Your task to perform on an android device: Search for Italian restaurants on Maps Image 0: 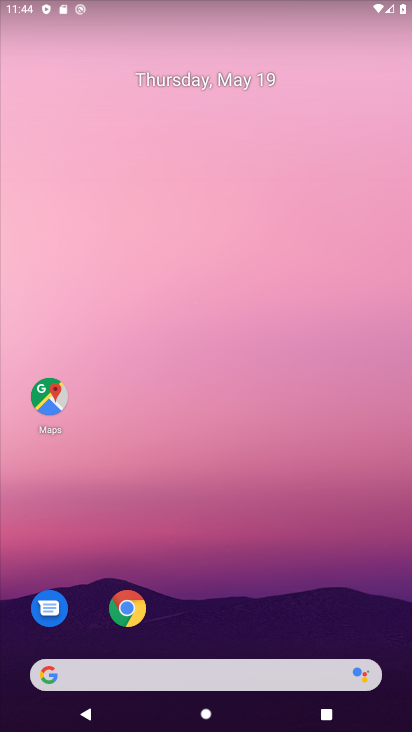
Step 0: drag from (367, 640) to (380, 103)
Your task to perform on an android device: Search for Italian restaurants on Maps Image 1: 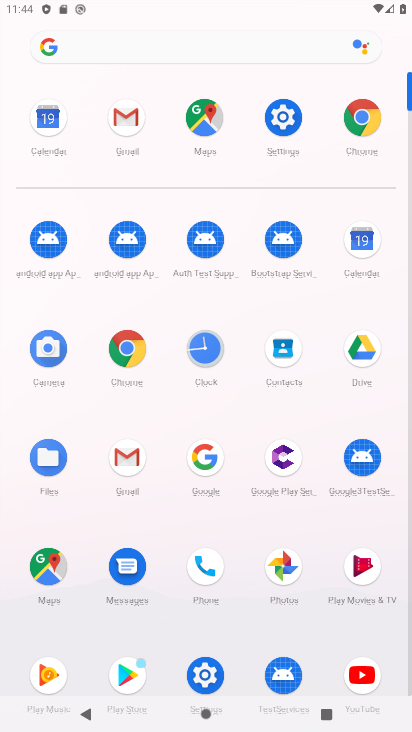
Step 1: click (53, 574)
Your task to perform on an android device: Search for Italian restaurants on Maps Image 2: 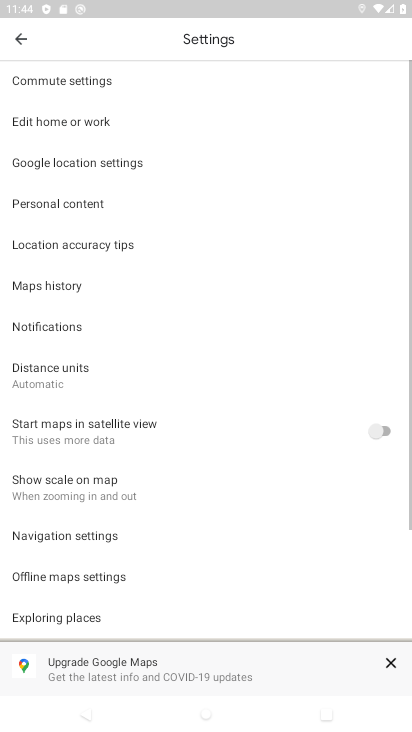
Step 2: click (18, 33)
Your task to perform on an android device: Search for Italian restaurants on Maps Image 3: 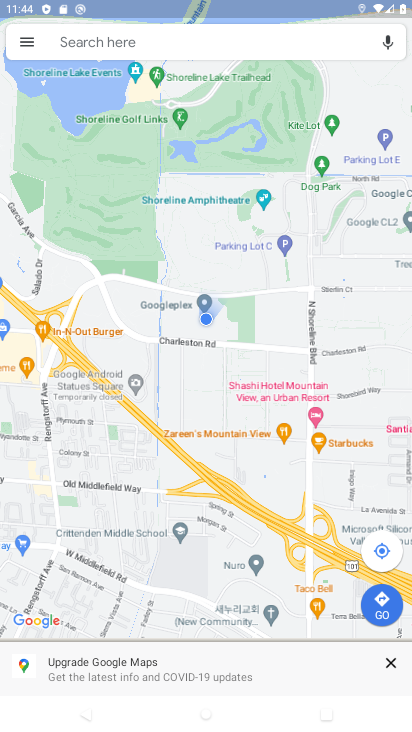
Step 3: click (205, 41)
Your task to perform on an android device: Search for Italian restaurants on Maps Image 4: 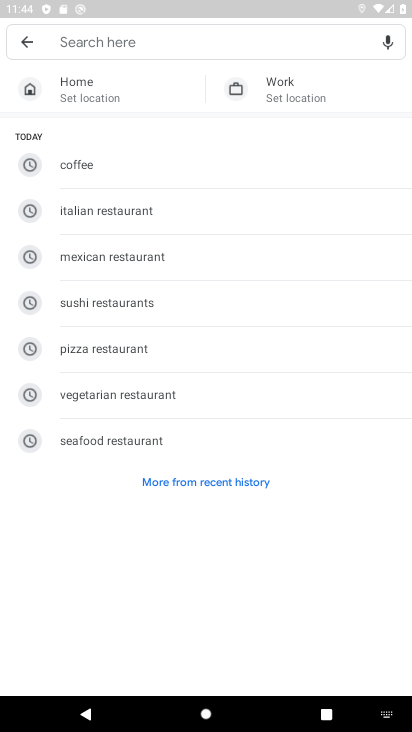
Step 4: type "italian "
Your task to perform on an android device: Search for Italian restaurants on Maps Image 5: 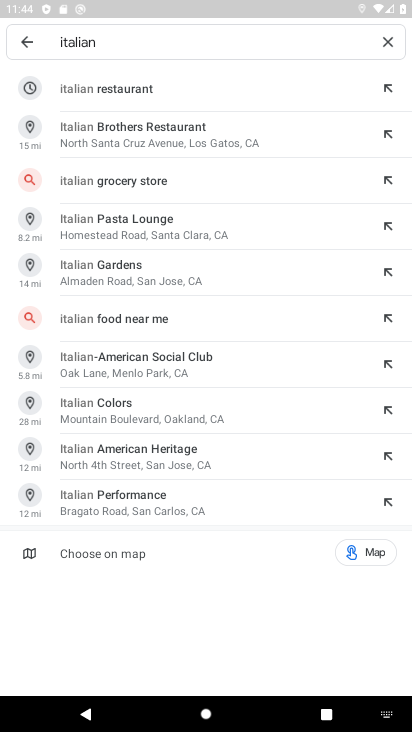
Step 5: click (146, 102)
Your task to perform on an android device: Search for Italian restaurants on Maps Image 6: 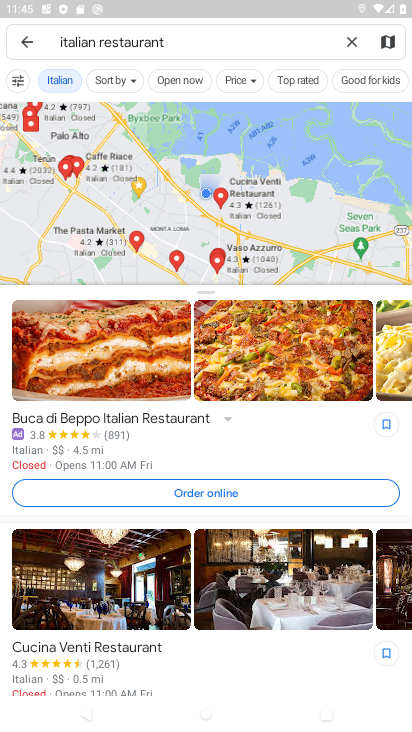
Step 6: task complete